Your task to perform on an android device: Open Chrome and go to the settings page Image 0: 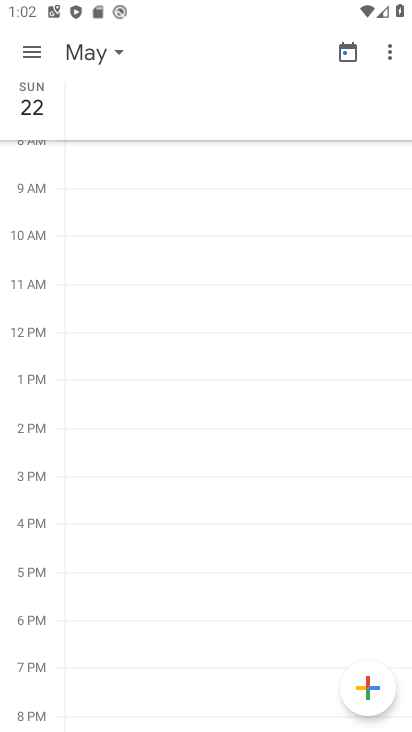
Step 0: press home button
Your task to perform on an android device: Open Chrome and go to the settings page Image 1: 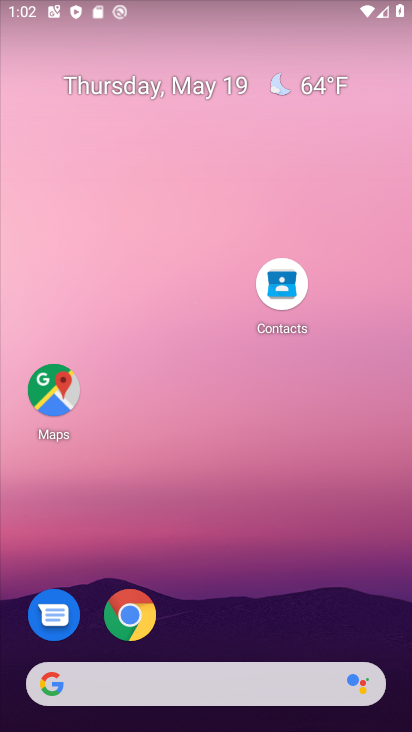
Step 1: drag from (230, 639) to (233, 211)
Your task to perform on an android device: Open Chrome and go to the settings page Image 2: 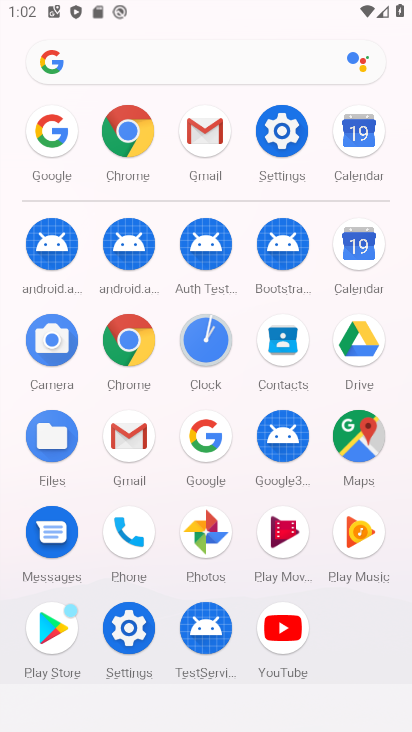
Step 2: click (122, 162)
Your task to perform on an android device: Open Chrome and go to the settings page Image 3: 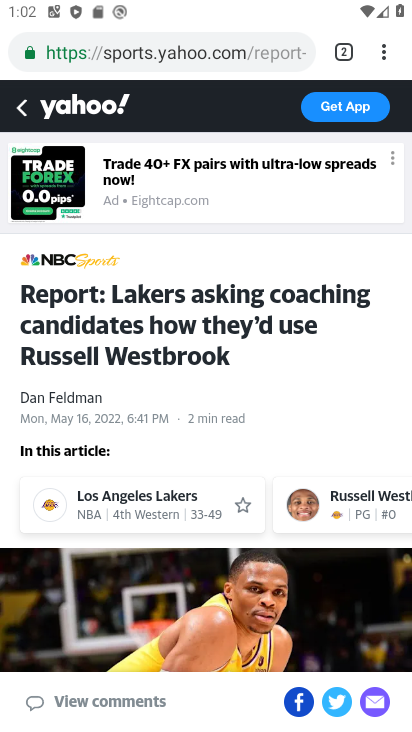
Step 3: click (388, 58)
Your task to perform on an android device: Open Chrome and go to the settings page Image 4: 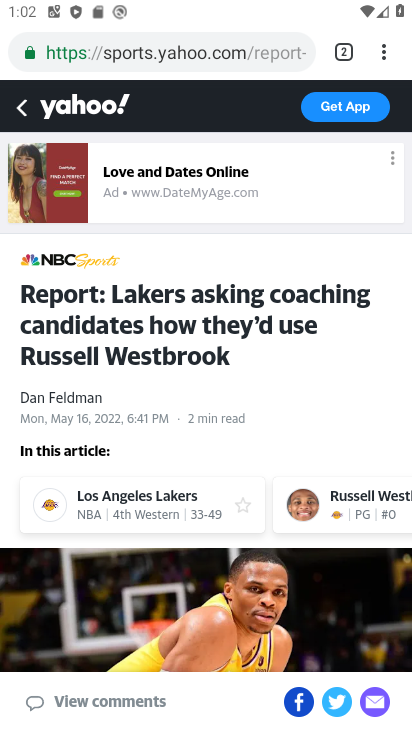
Step 4: click (392, 43)
Your task to perform on an android device: Open Chrome and go to the settings page Image 5: 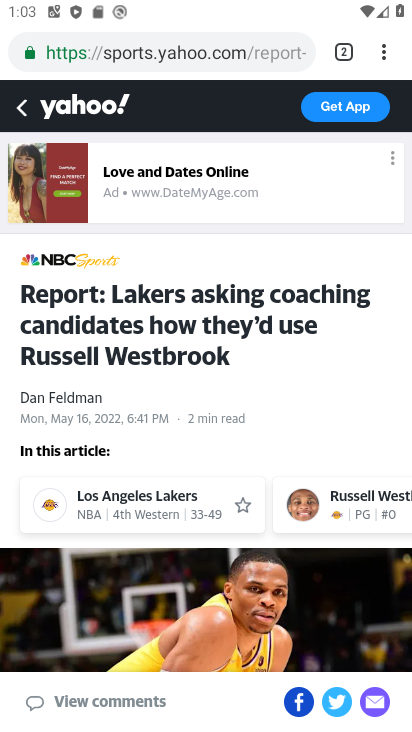
Step 5: click (391, 47)
Your task to perform on an android device: Open Chrome and go to the settings page Image 6: 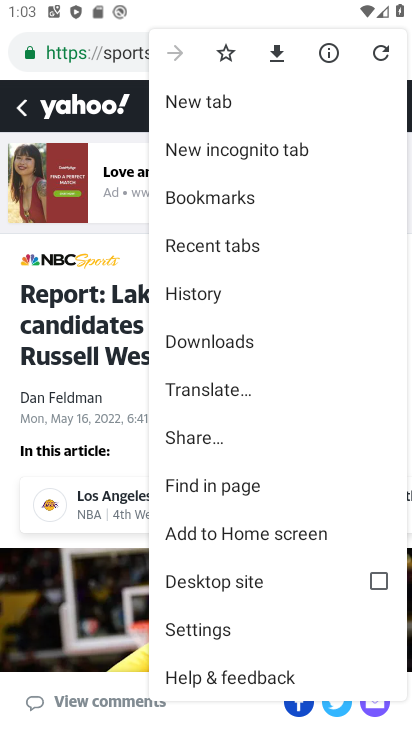
Step 6: drag from (287, 395) to (299, 61)
Your task to perform on an android device: Open Chrome and go to the settings page Image 7: 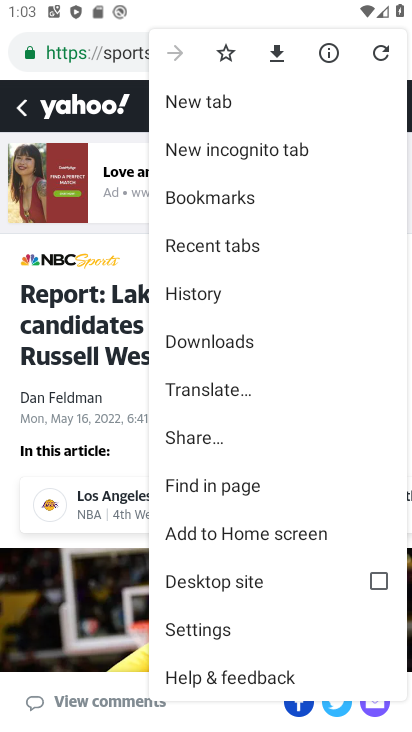
Step 7: click (271, 617)
Your task to perform on an android device: Open Chrome and go to the settings page Image 8: 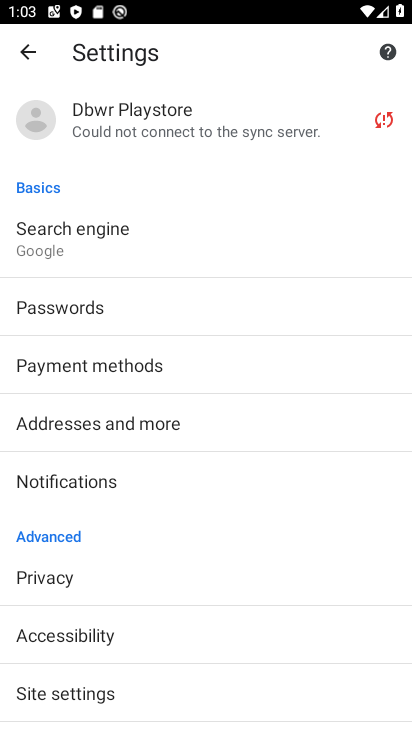
Step 8: task complete